Your task to perform on an android device: turn on improve location accuracy Image 0: 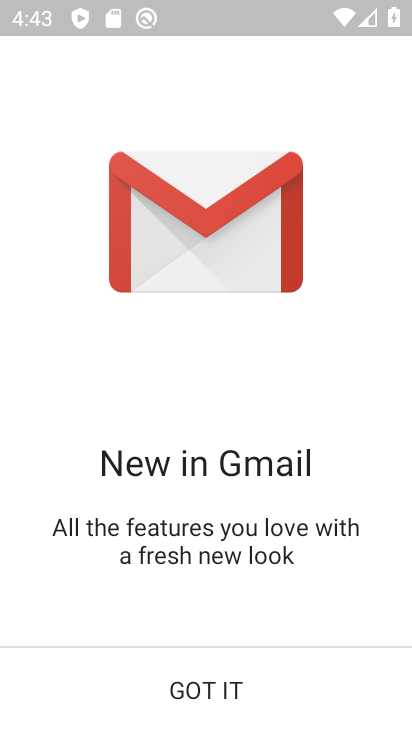
Step 0: press home button
Your task to perform on an android device: turn on improve location accuracy Image 1: 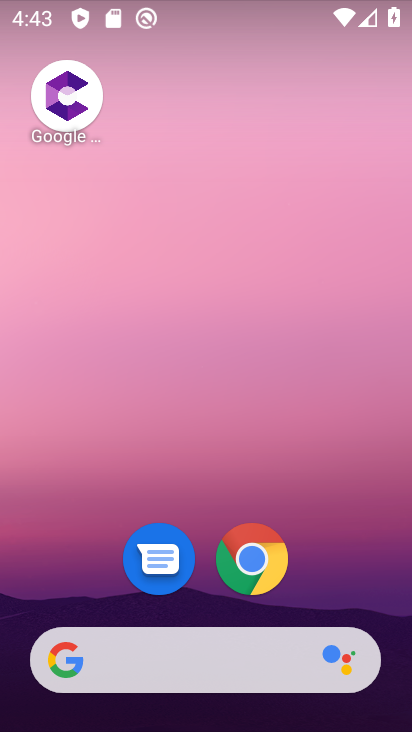
Step 1: drag from (163, 621) to (292, 10)
Your task to perform on an android device: turn on improve location accuracy Image 2: 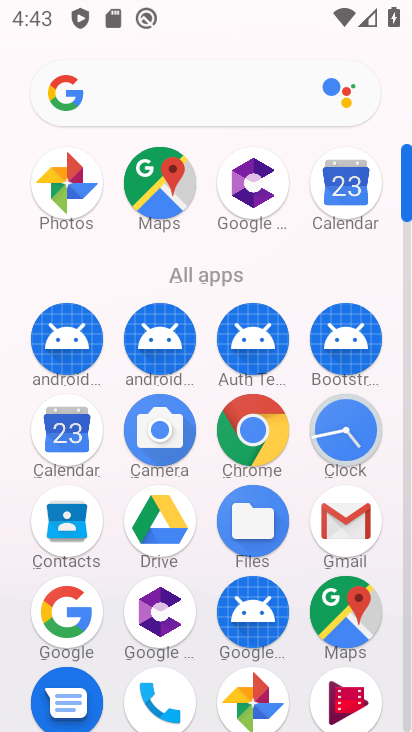
Step 2: drag from (296, 661) to (346, 85)
Your task to perform on an android device: turn on improve location accuracy Image 3: 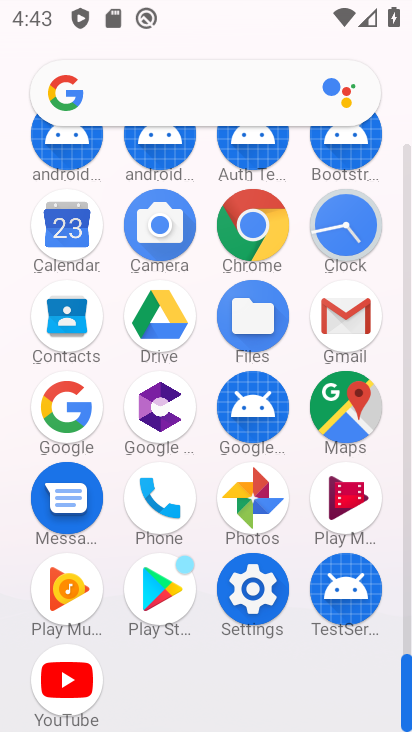
Step 3: click (266, 596)
Your task to perform on an android device: turn on improve location accuracy Image 4: 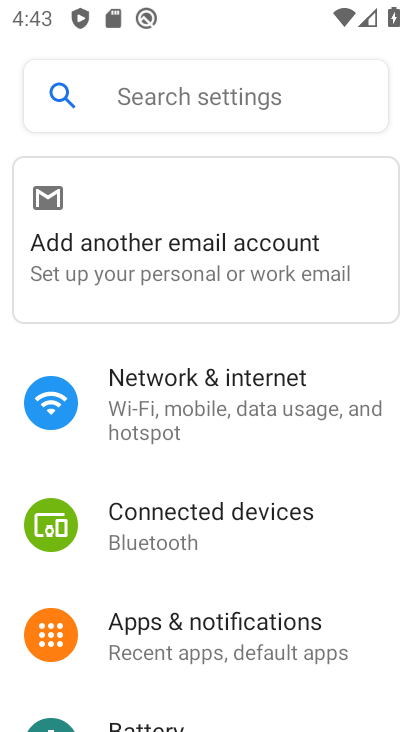
Step 4: drag from (274, 633) to (283, 79)
Your task to perform on an android device: turn on improve location accuracy Image 5: 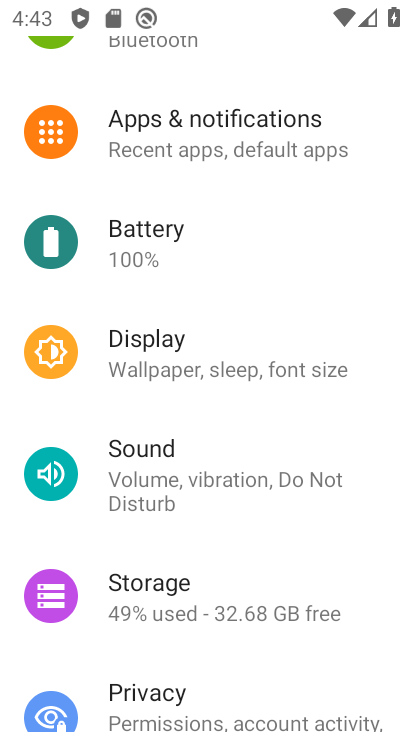
Step 5: drag from (239, 656) to (274, 148)
Your task to perform on an android device: turn on improve location accuracy Image 6: 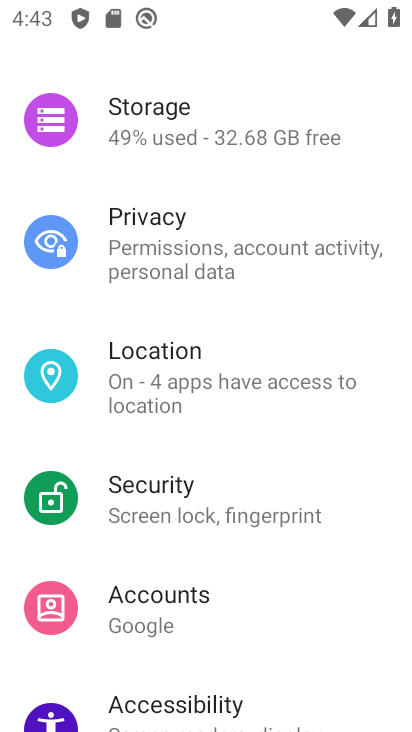
Step 6: click (244, 384)
Your task to perform on an android device: turn on improve location accuracy Image 7: 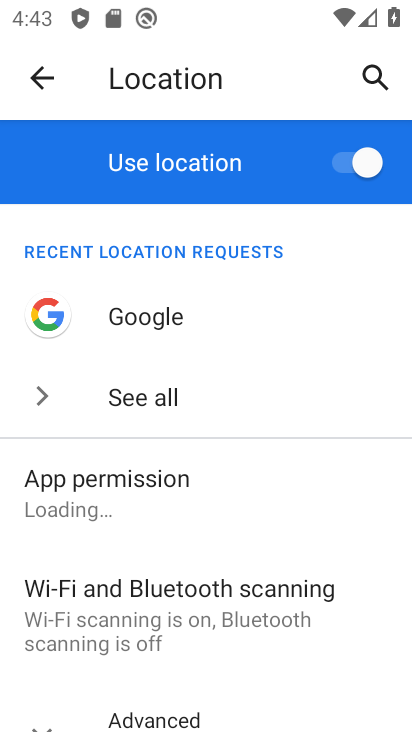
Step 7: drag from (225, 644) to (261, 260)
Your task to perform on an android device: turn on improve location accuracy Image 8: 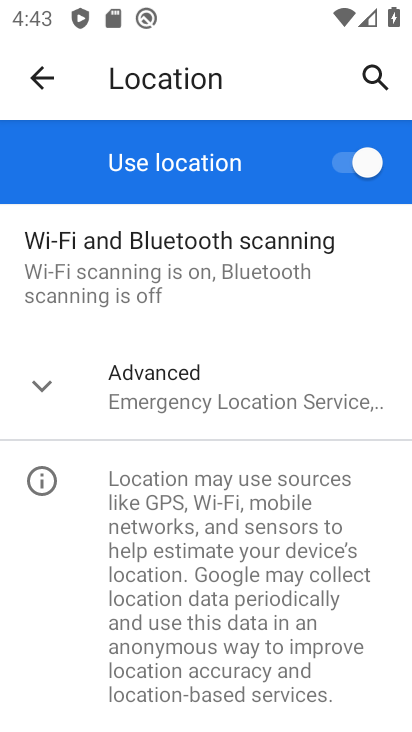
Step 8: click (234, 401)
Your task to perform on an android device: turn on improve location accuracy Image 9: 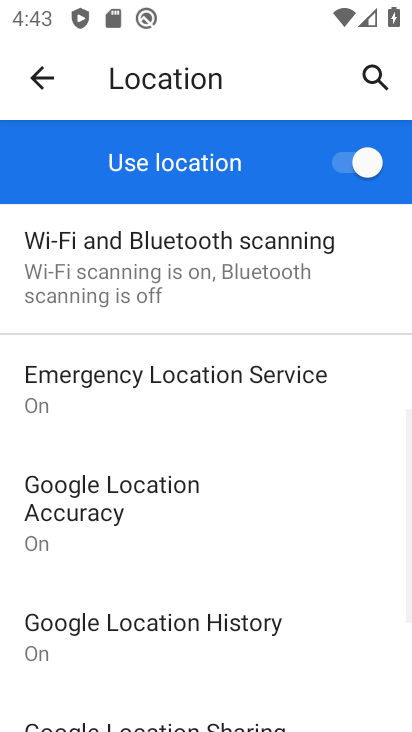
Step 9: task complete